Your task to perform on an android device: set an alarm Image 0: 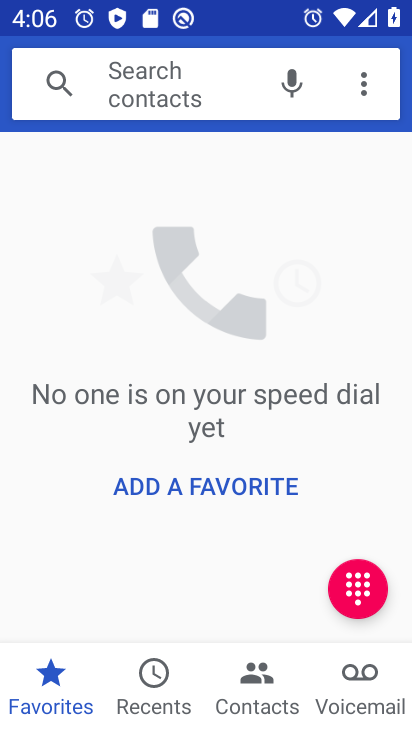
Step 0: press home button
Your task to perform on an android device: set an alarm Image 1: 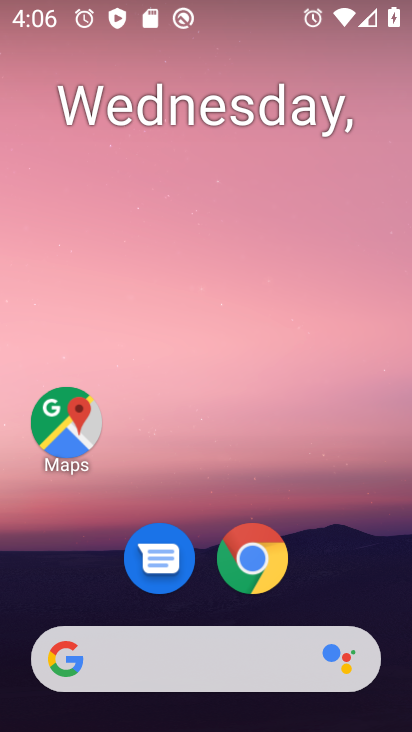
Step 1: drag from (196, 563) to (177, 234)
Your task to perform on an android device: set an alarm Image 2: 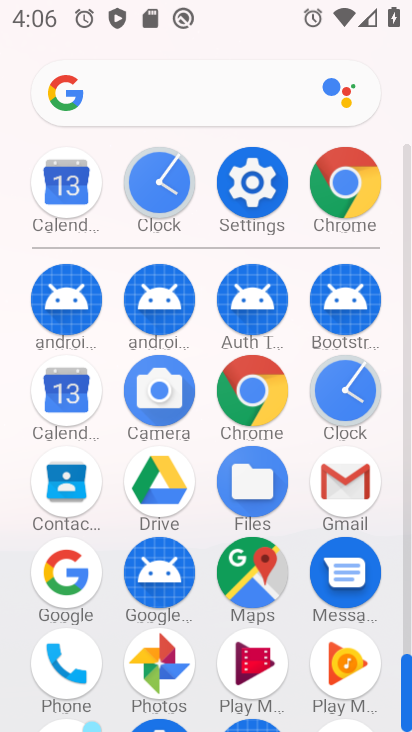
Step 2: click (150, 201)
Your task to perform on an android device: set an alarm Image 3: 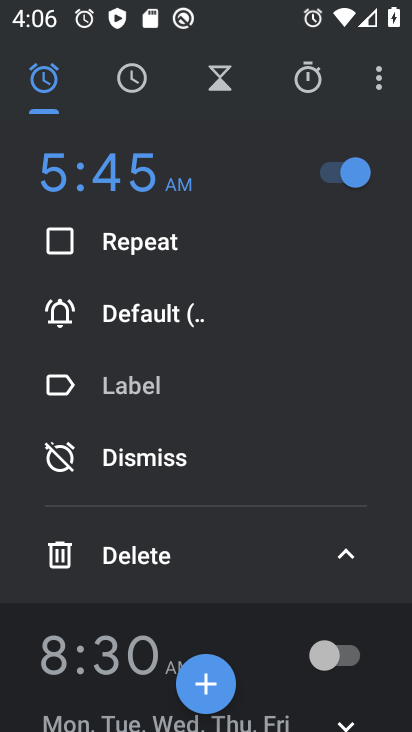
Step 3: task complete